Your task to perform on an android device: change keyboard looks Image 0: 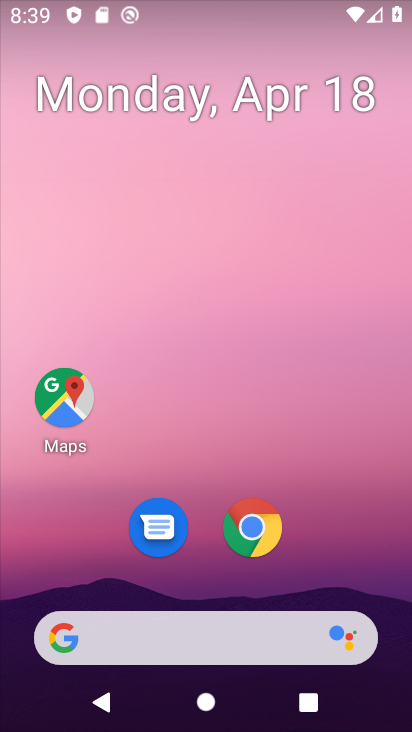
Step 0: drag from (330, 548) to (346, 84)
Your task to perform on an android device: change keyboard looks Image 1: 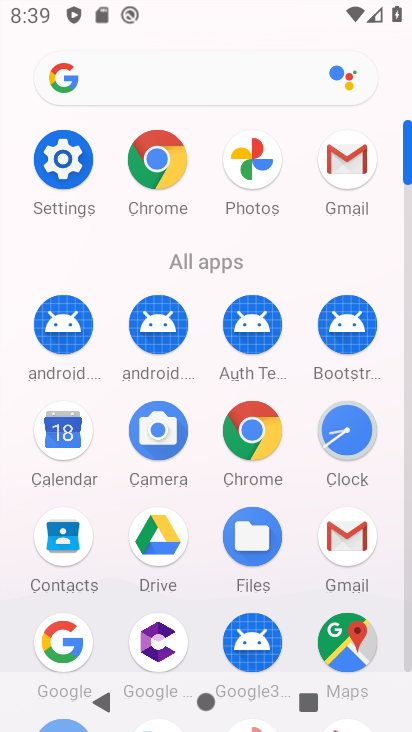
Step 1: click (62, 152)
Your task to perform on an android device: change keyboard looks Image 2: 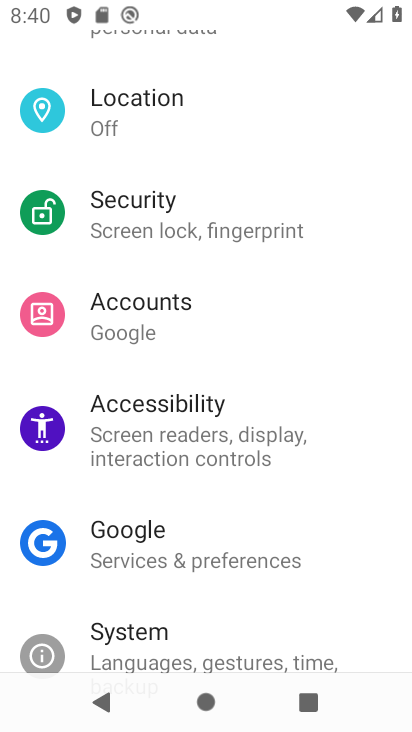
Step 2: click (134, 647)
Your task to perform on an android device: change keyboard looks Image 3: 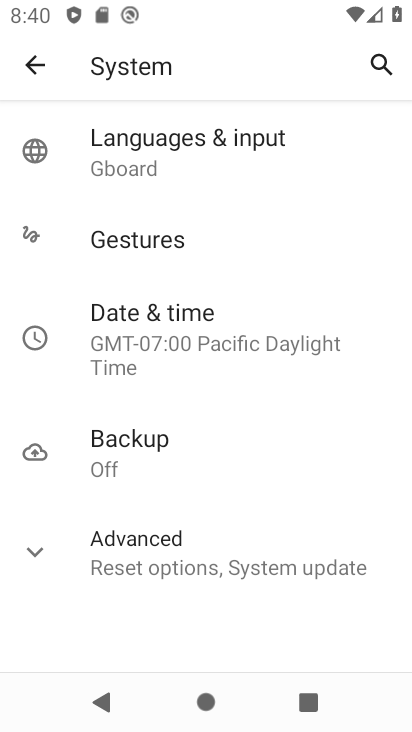
Step 3: click (141, 147)
Your task to perform on an android device: change keyboard looks Image 4: 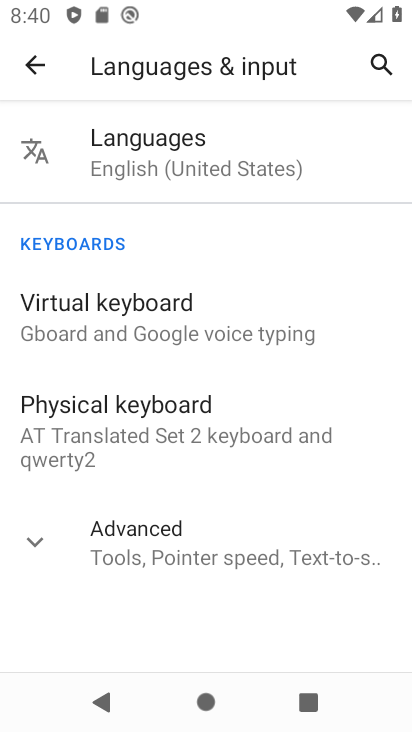
Step 4: click (156, 317)
Your task to perform on an android device: change keyboard looks Image 5: 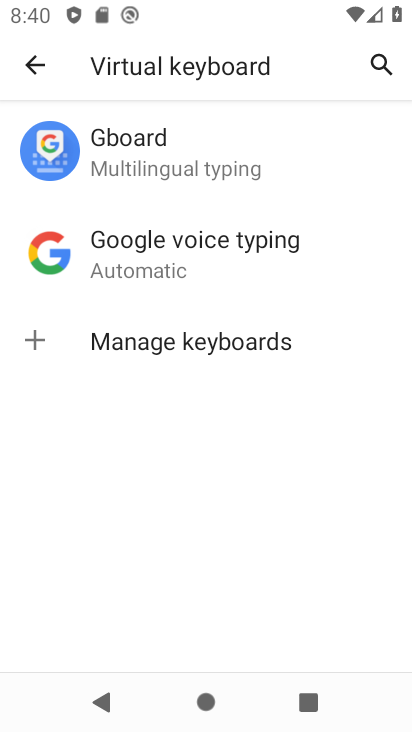
Step 5: click (138, 149)
Your task to perform on an android device: change keyboard looks Image 6: 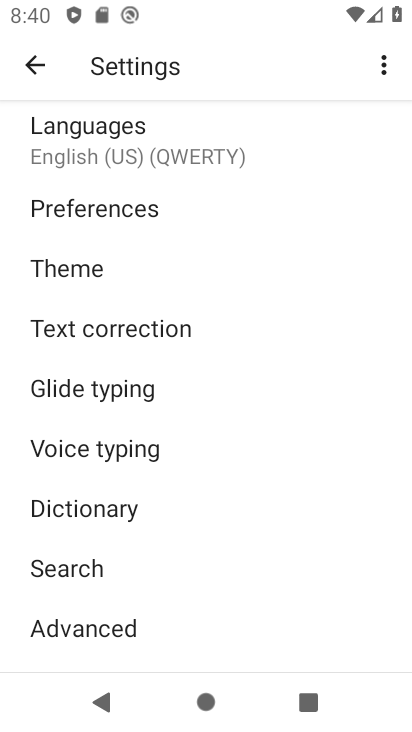
Step 6: click (90, 268)
Your task to perform on an android device: change keyboard looks Image 7: 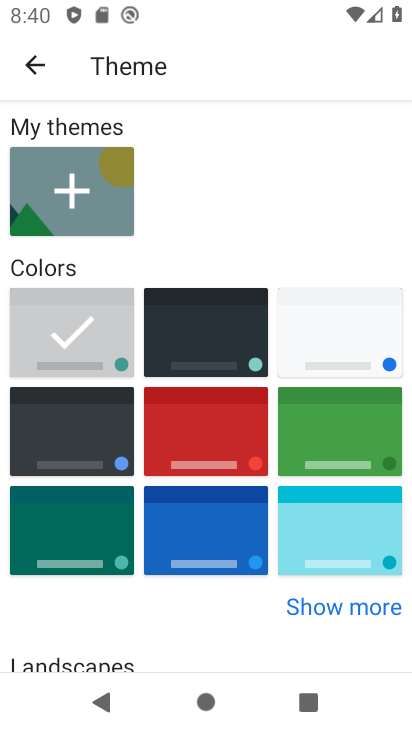
Step 7: click (325, 328)
Your task to perform on an android device: change keyboard looks Image 8: 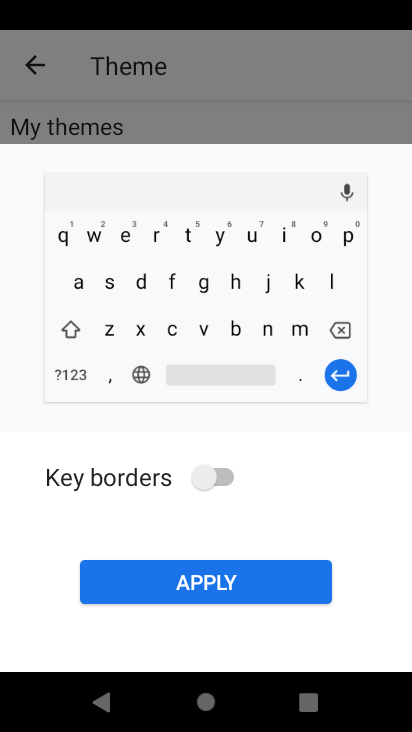
Step 8: click (226, 468)
Your task to perform on an android device: change keyboard looks Image 9: 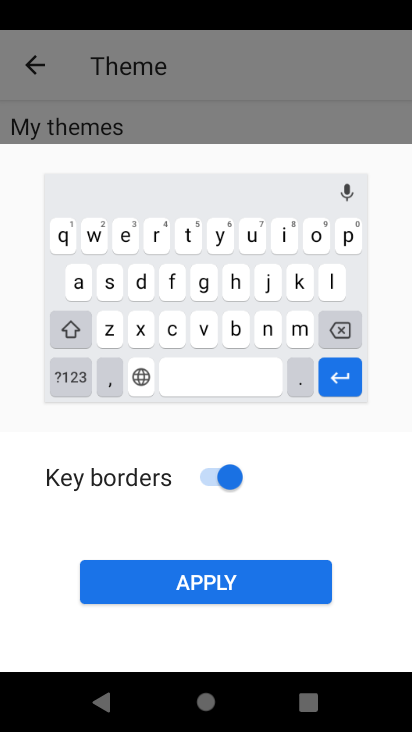
Step 9: click (285, 577)
Your task to perform on an android device: change keyboard looks Image 10: 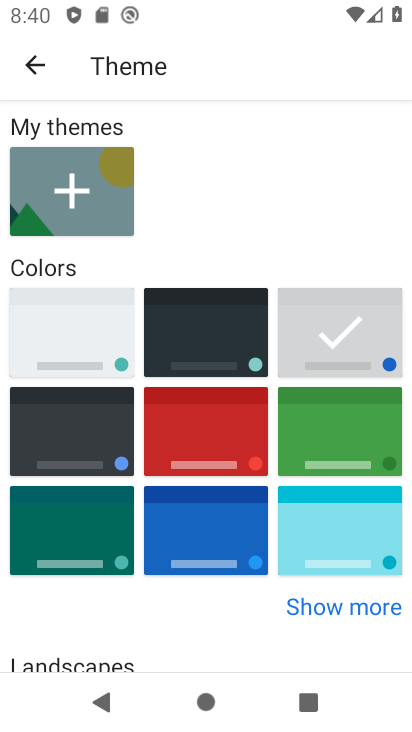
Step 10: task complete